Your task to perform on an android device: Open Reddit.com Image 0: 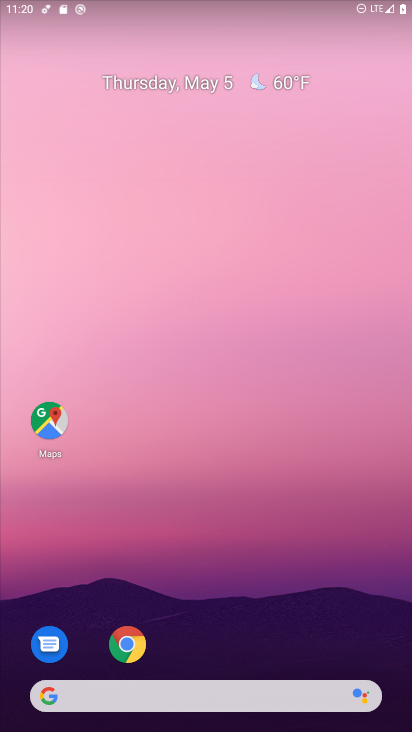
Step 0: drag from (318, 621) to (354, 132)
Your task to perform on an android device: Open Reddit.com Image 1: 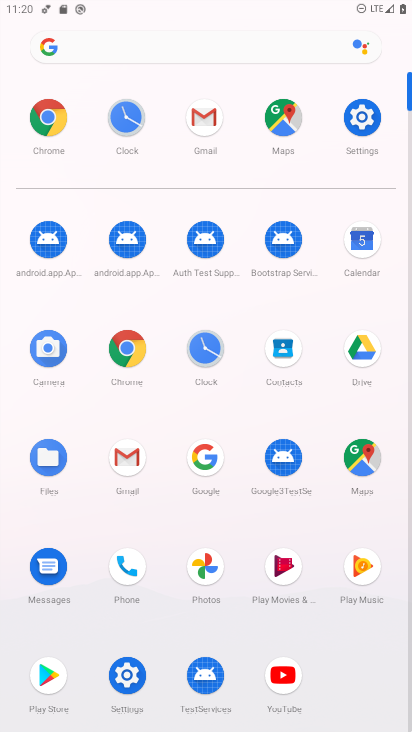
Step 1: click (122, 358)
Your task to perform on an android device: Open Reddit.com Image 2: 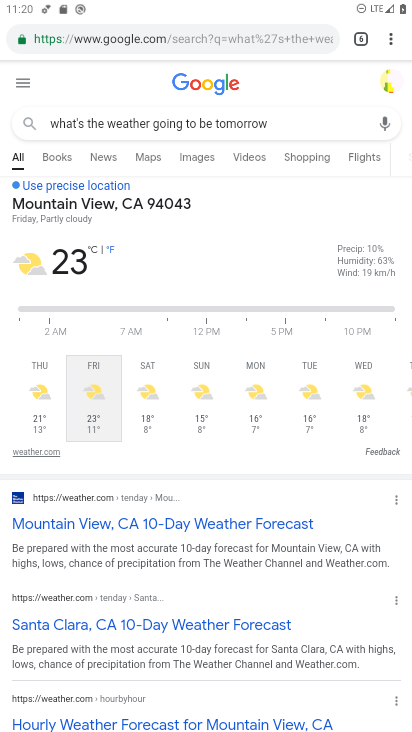
Step 2: click (234, 31)
Your task to perform on an android device: Open Reddit.com Image 3: 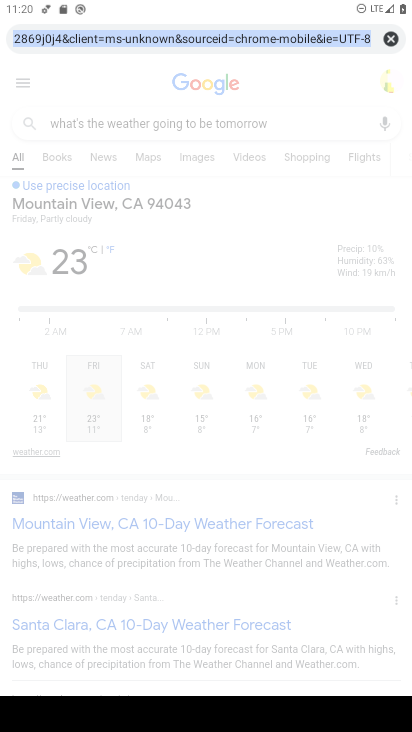
Step 3: click (391, 39)
Your task to perform on an android device: Open Reddit.com Image 4: 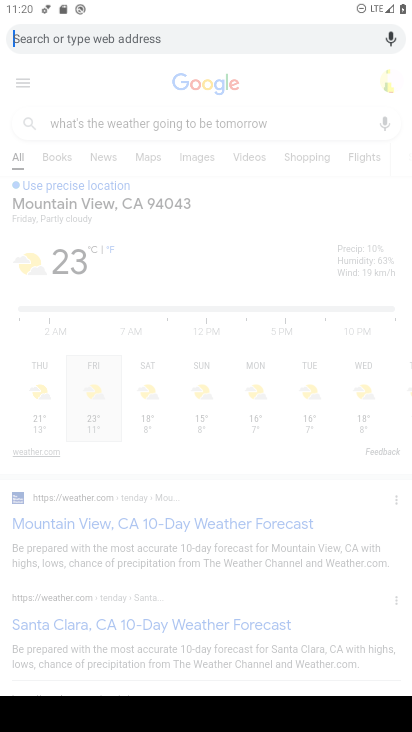
Step 4: type "reddit.com"
Your task to perform on an android device: Open Reddit.com Image 5: 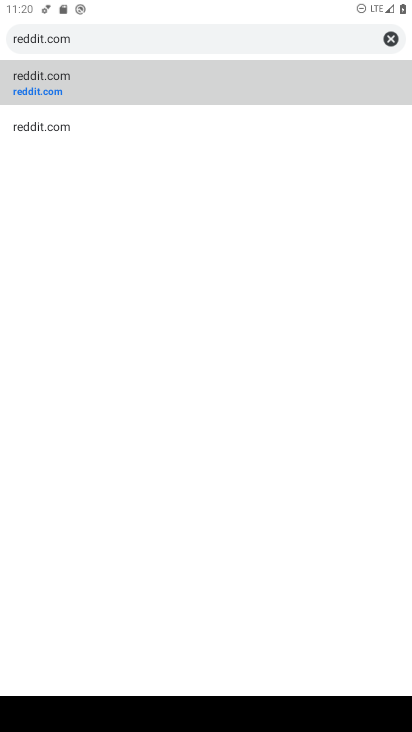
Step 5: click (55, 91)
Your task to perform on an android device: Open Reddit.com Image 6: 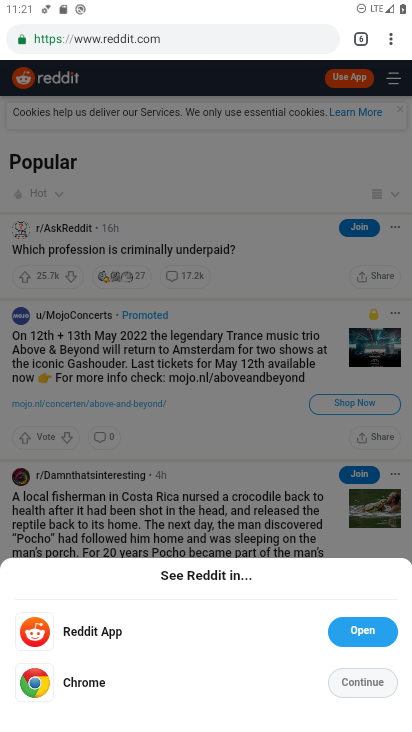
Step 6: task complete